Your task to perform on an android device: Search for Mexican restaurants on Maps Image 0: 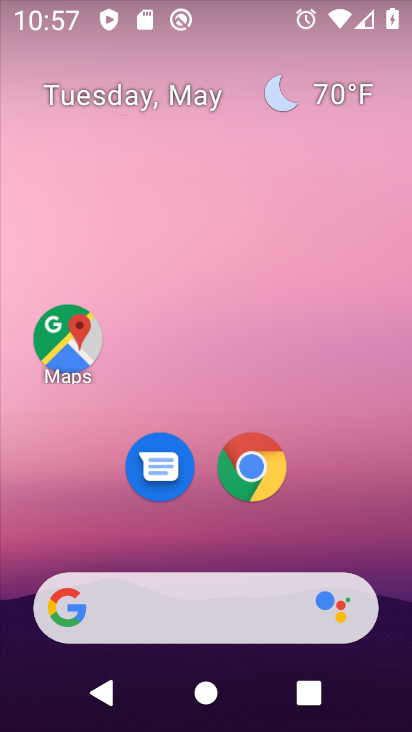
Step 0: click (48, 343)
Your task to perform on an android device: Search for Mexican restaurants on Maps Image 1: 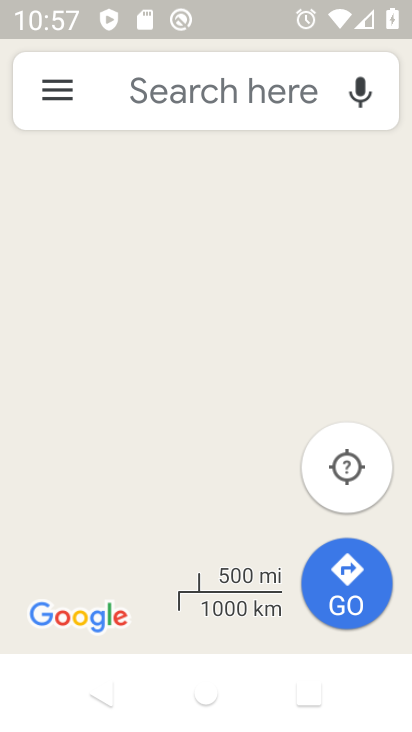
Step 1: click (212, 94)
Your task to perform on an android device: Search for Mexican restaurants on Maps Image 2: 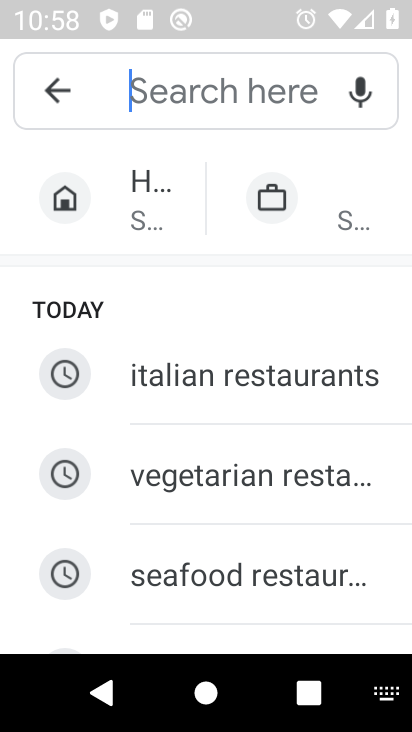
Step 2: type "Mexican restaurants"
Your task to perform on an android device: Search for Mexican restaurants on Maps Image 3: 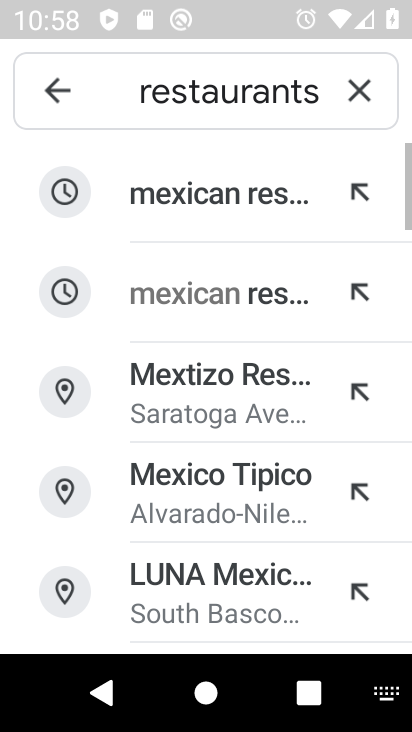
Step 3: click (255, 221)
Your task to perform on an android device: Search for Mexican restaurants on Maps Image 4: 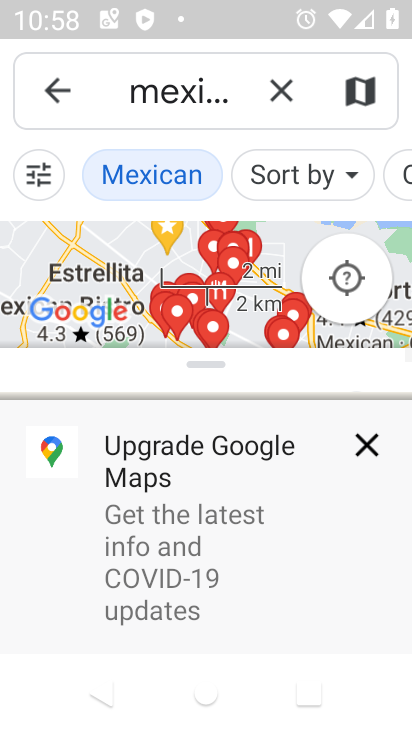
Step 4: click (371, 449)
Your task to perform on an android device: Search for Mexican restaurants on Maps Image 5: 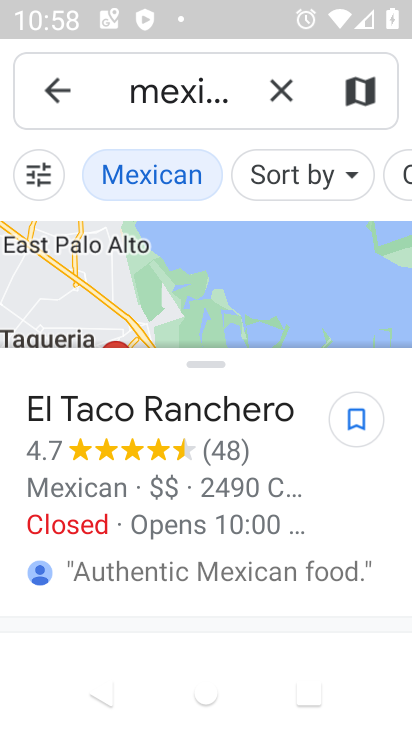
Step 5: task complete